Your task to perform on an android device: allow notifications from all sites in the chrome app Image 0: 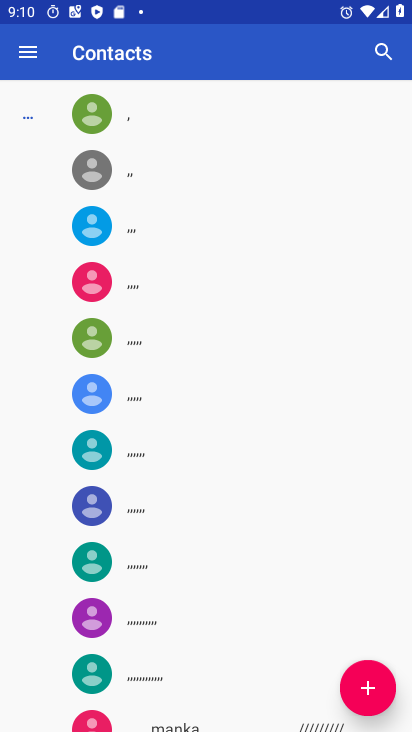
Step 0: press home button
Your task to perform on an android device: allow notifications from all sites in the chrome app Image 1: 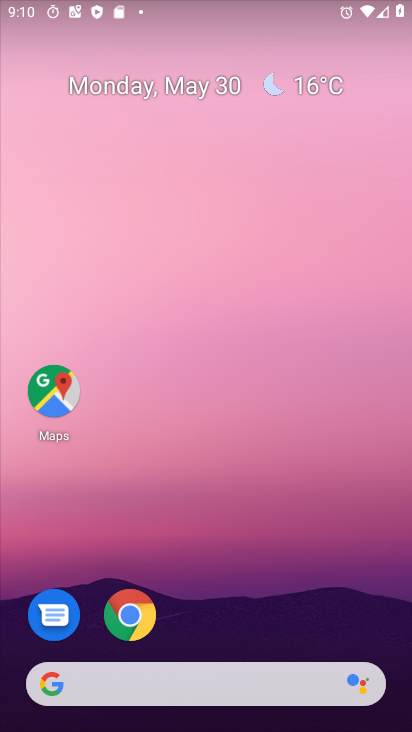
Step 1: drag from (317, 469) to (302, 4)
Your task to perform on an android device: allow notifications from all sites in the chrome app Image 2: 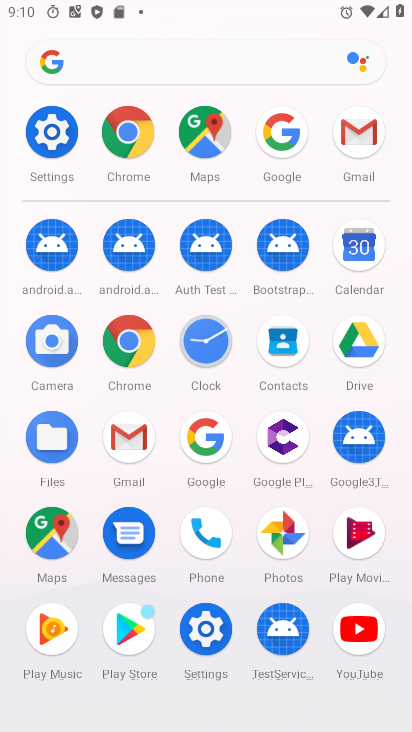
Step 2: click (123, 151)
Your task to perform on an android device: allow notifications from all sites in the chrome app Image 3: 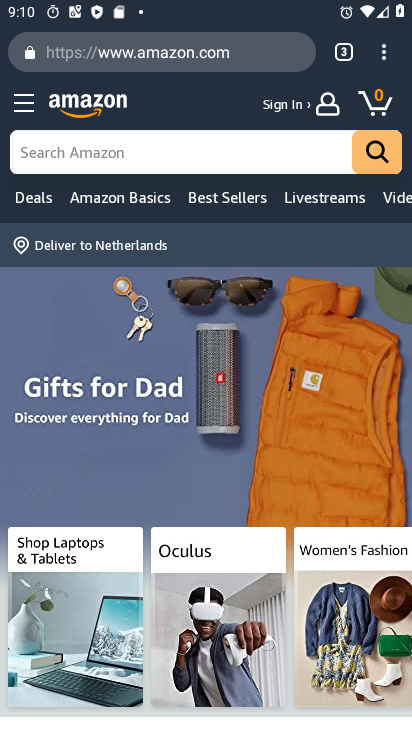
Step 3: drag from (383, 51) to (211, 629)
Your task to perform on an android device: allow notifications from all sites in the chrome app Image 4: 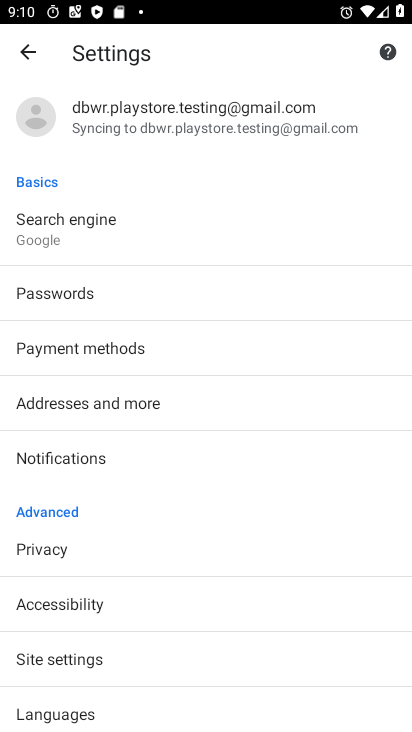
Step 4: drag from (192, 643) to (258, 153)
Your task to perform on an android device: allow notifications from all sites in the chrome app Image 5: 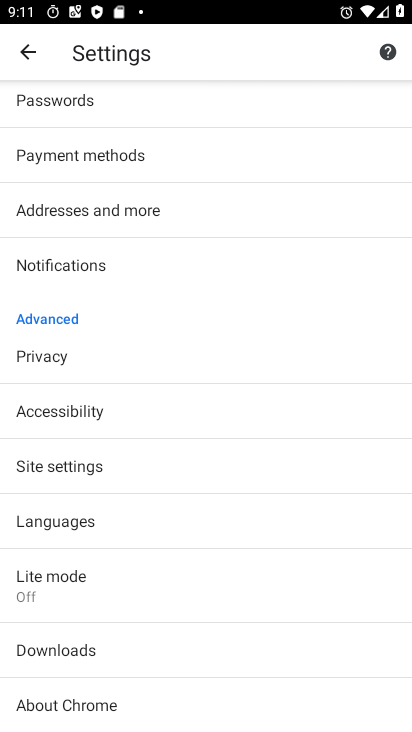
Step 5: click (100, 461)
Your task to perform on an android device: allow notifications from all sites in the chrome app Image 6: 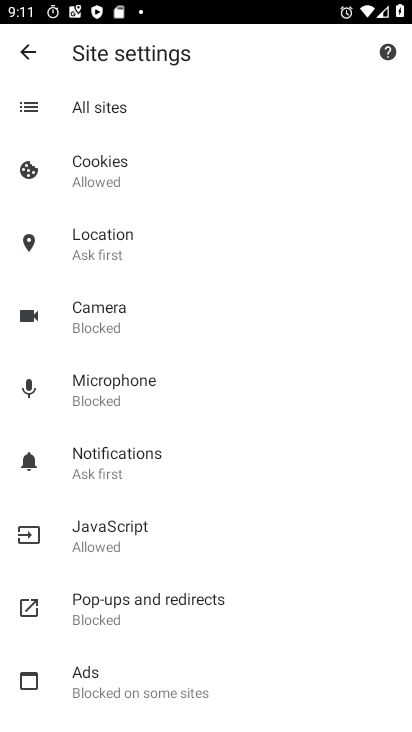
Step 6: drag from (198, 582) to (244, 120)
Your task to perform on an android device: allow notifications from all sites in the chrome app Image 7: 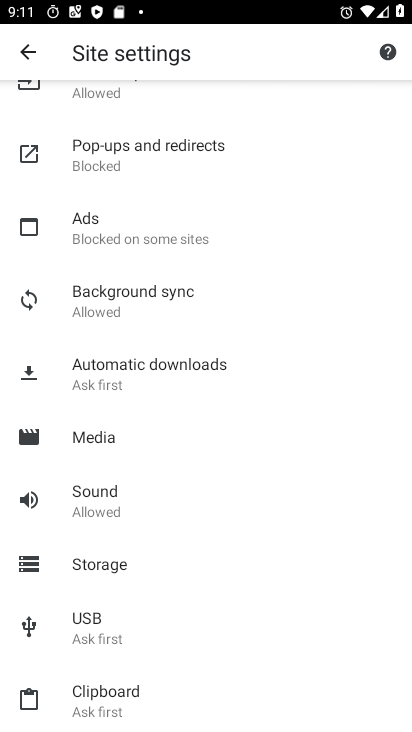
Step 7: drag from (157, 608) to (150, 120)
Your task to perform on an android device: allow notifications from all sites in the chrome app Image 8: 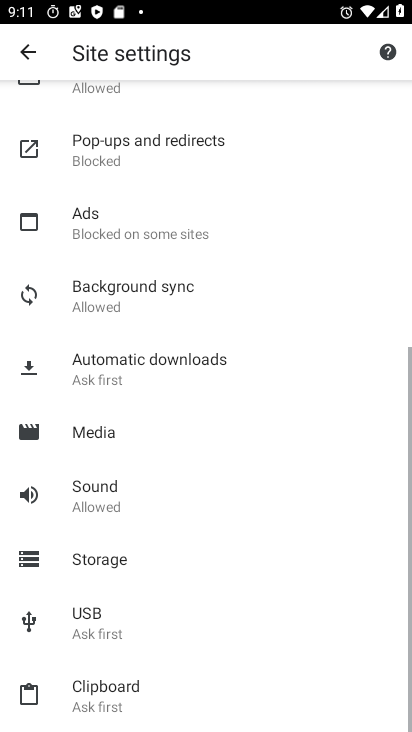
Step 8: drag from (155, 152) to (255, 595)
Your task to perform on an android device: allow notifications from all sites in the chrome app Image 9: 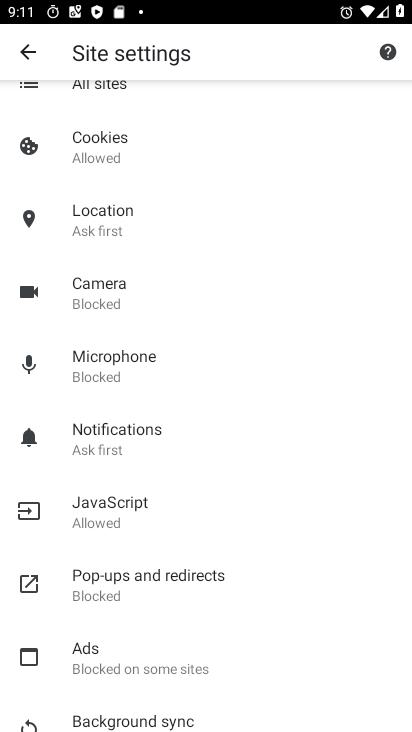
Step 9: click (112, 434)
Your task to perform on an android device: allow notifications from all sites in the chrome app Image 10: 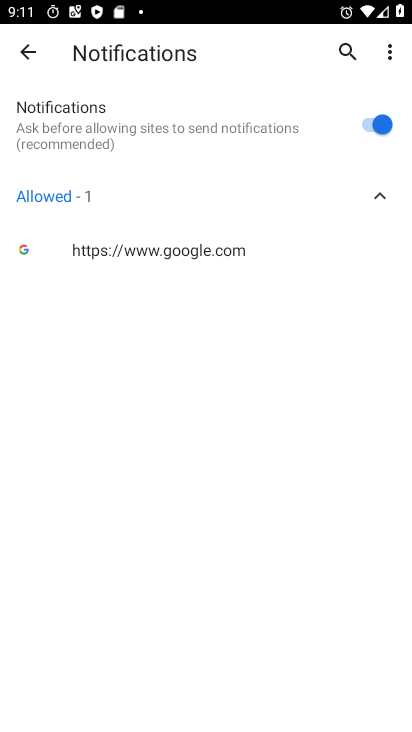
Step 10: task complete